Your task to perform on an android device: turn off smart reply in the gmail app Image 0: 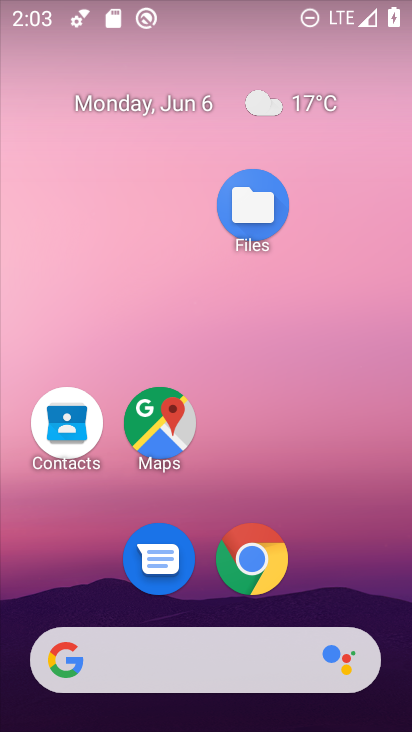
Step 0: drag from (313, 616) to (356, 21)
Your task to perform on an android device: turn off smart reply in the gmail app Image 1: 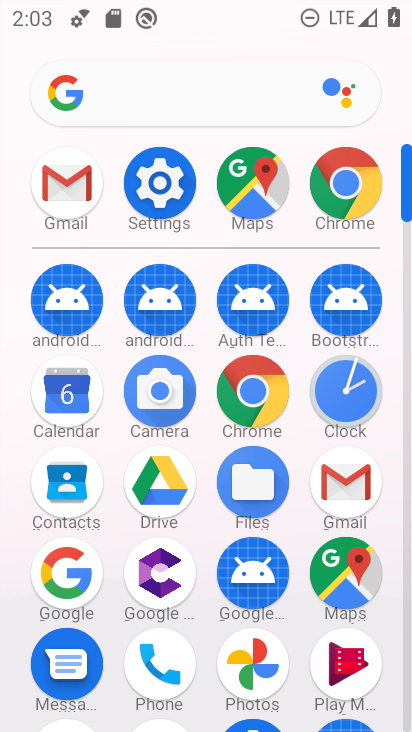
Step 1: click (349, 488)
Your task to perform on an android device: turn off smart reply in the gmail app Image 2: 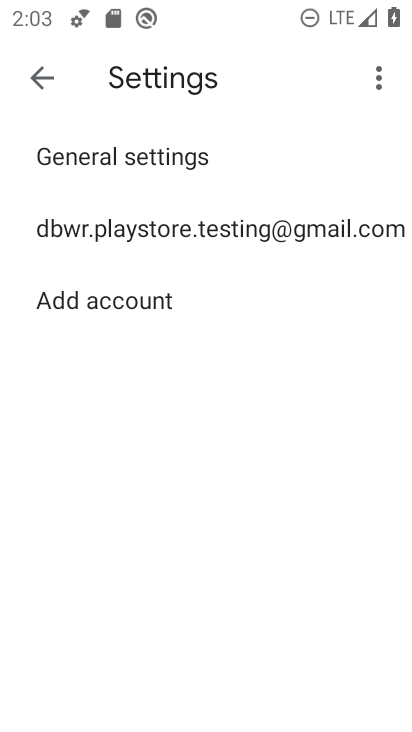
Step 2: click (113, 241)
Your task to perform on an android device: turn off smart reply in the gmail app Image 3: 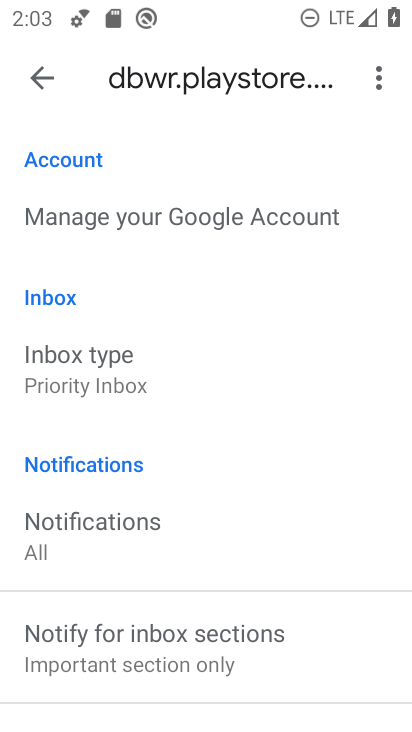
Step 3: drag from (147, 567) to (175, 248)
Your task to perform on an android device: turn off smart reply in the gmail app Image 4: 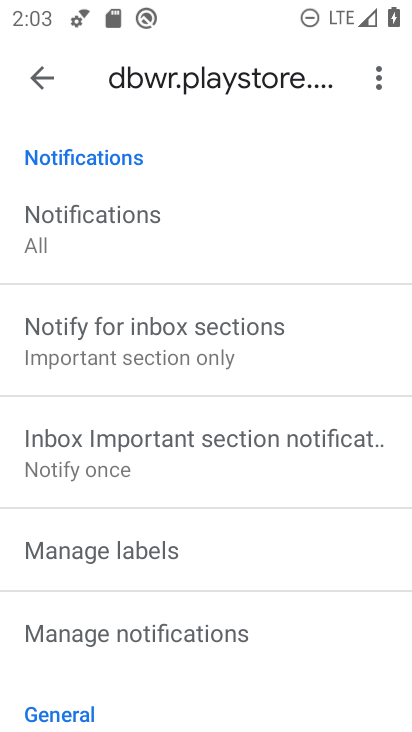
Step 4: drag from (175, 610) to (203, 330)
Your task to perform on an android device: turn off smart reply in the gmail app Image 5: 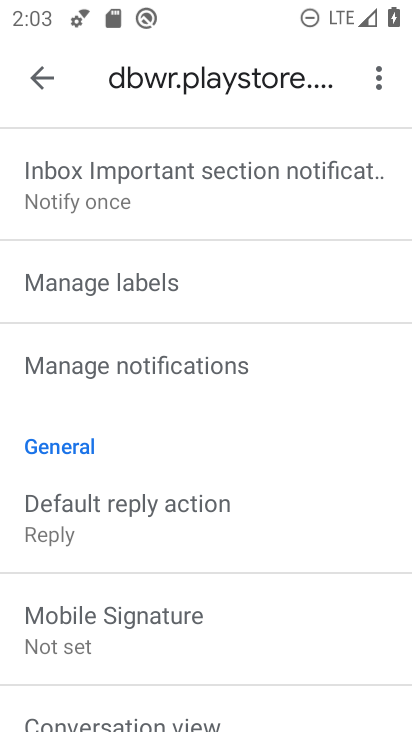
Step 5: drag from (199, 598) to (219, 249)
Your task to perform on an android device: turn off smart reply in the gmail app Image 6: 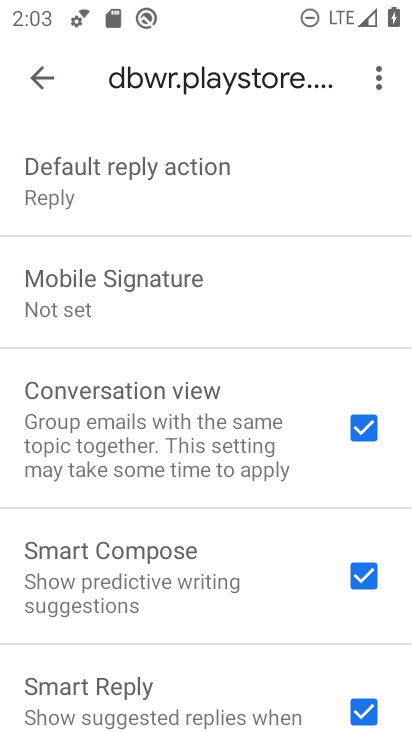
Step 6: drag from (197, 646) to (226, 403)
Your task to perform on an android device: turn off smart reply in the gmail app Image 7: 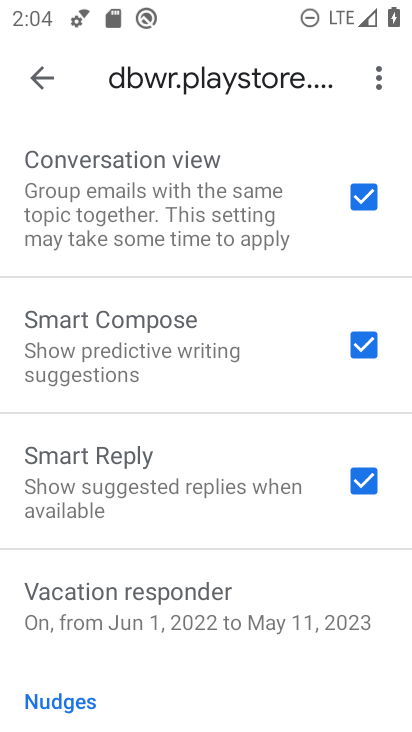
Step 7: click (376, 486)
Your task to perform on an android device: turn off smart reply in the gmail app Image 8: 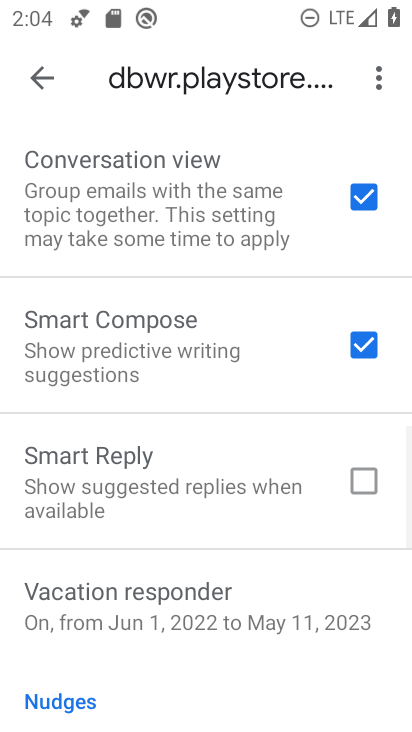
Step 8: task complete